Your task to perform on an android device: Open ESPN.com Image 0: 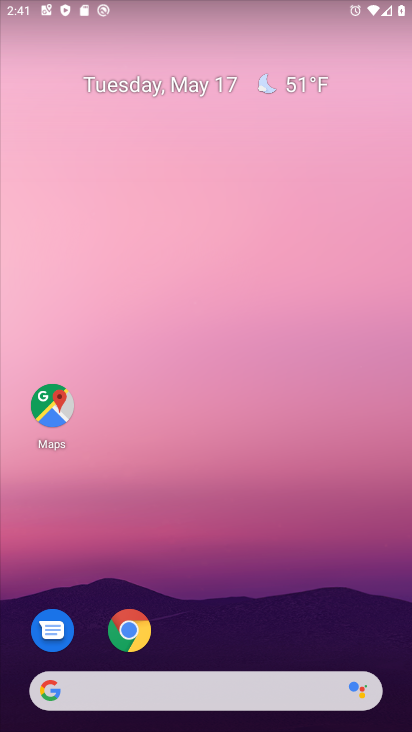
Step 0: click (133, 628)
Your task to perform on an android device: Open ESPN.com Image 1: 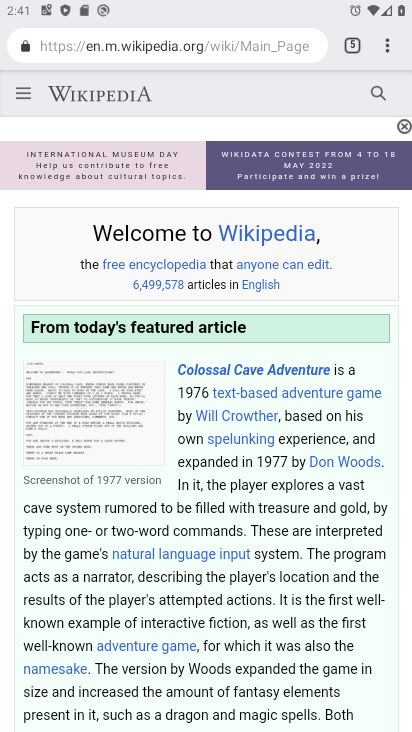
Step 1: click (349, 41)
Your task to perform on an android device: Open ESPN.com Image 2: 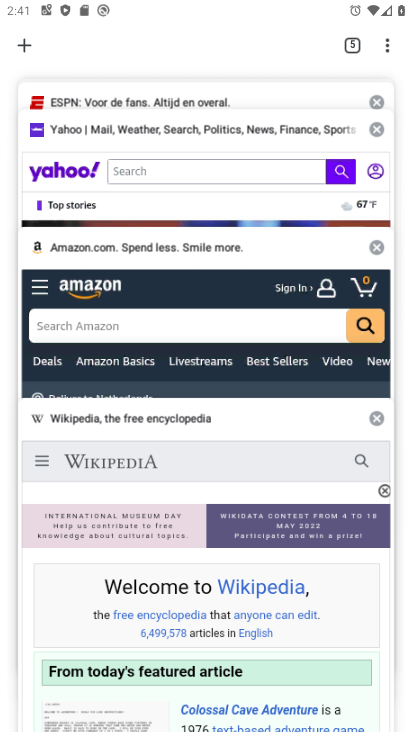
Step 2: click (50, 100)
Your task to perform on an android device: Open ESPN.com Image 3: 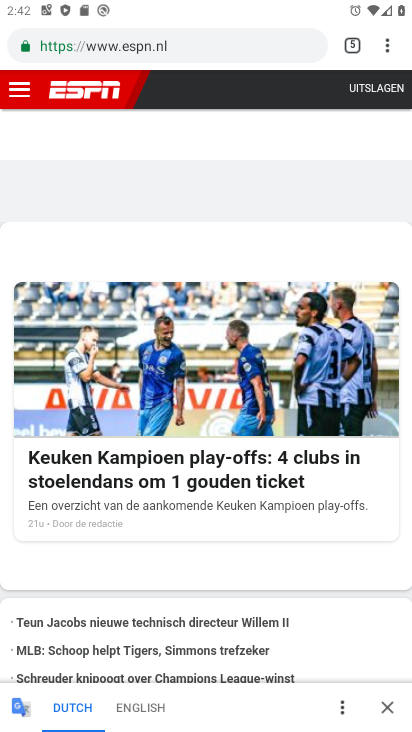
Step 3: task complete